Your task to perform on an android device: Open calendar and show me the second week of next month Image 0: 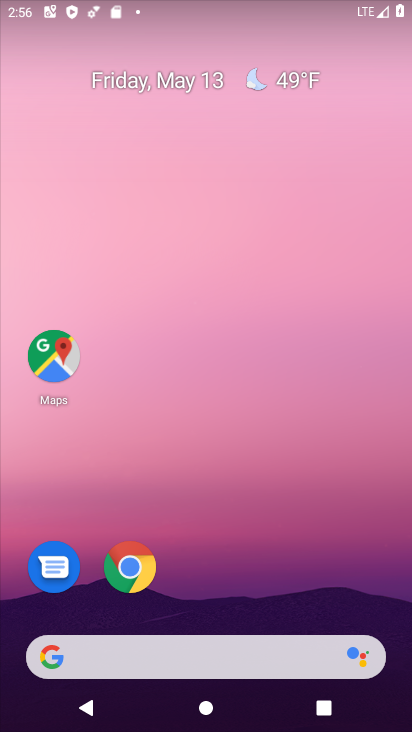
Step 0: drag from (207, 627) to (121, 0)
Your task to perform on an android device: Open calendar and show me the second week of next month Image 1: 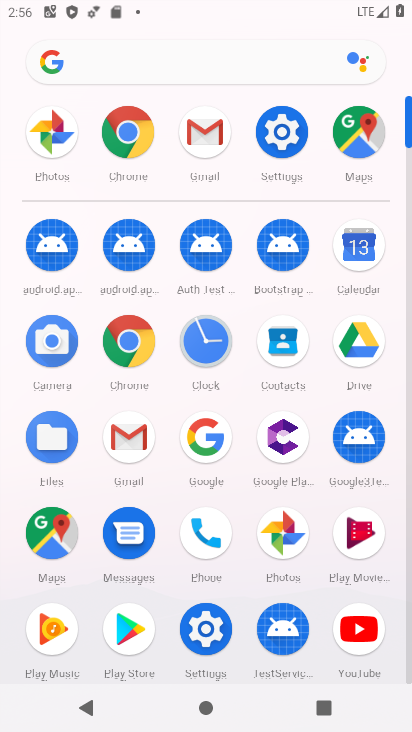
Step 1: click (350, 259)
Your task to perform on an android device: Open calendar and show me the second week of next month Image 2: 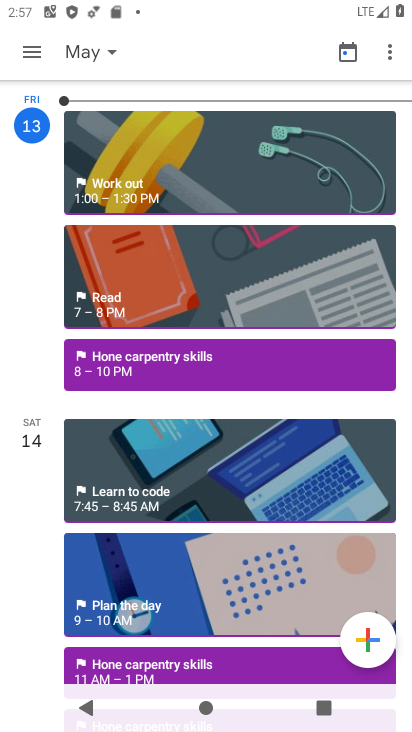
Step 2: click (25, 42)
Your task to perform on an android device: Open calendar and show me the second week of next month Image 3: 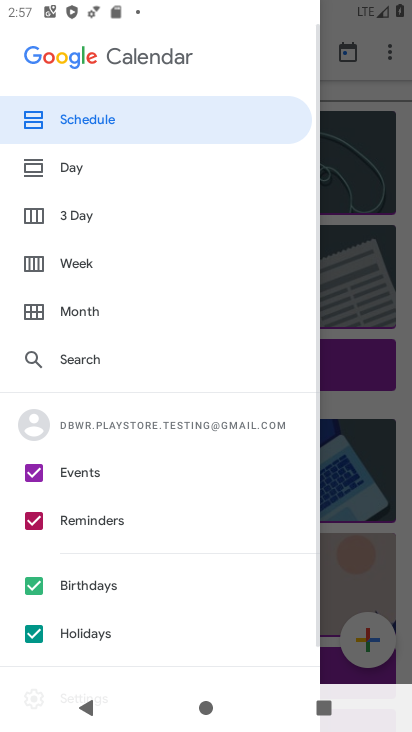
Step 3: click (85, 264)
Your task to perform on an android device: Open calendar and show me the second week of next month Image 4: 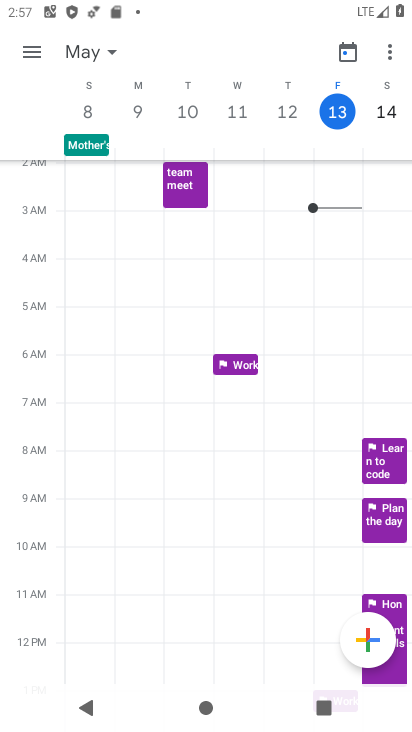
Step 4: task complete